Your task to perform on an android device: Open location settings Image 0: 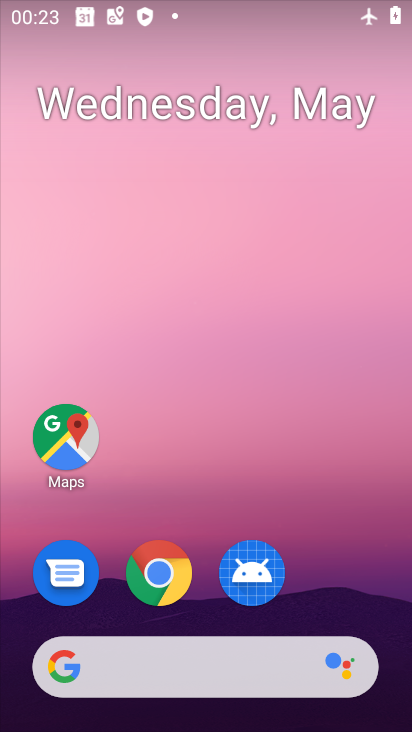
Step 0: drag from (306, 503) to (209, 43)
Your task to perform on an android device: Open location settings Image 1: 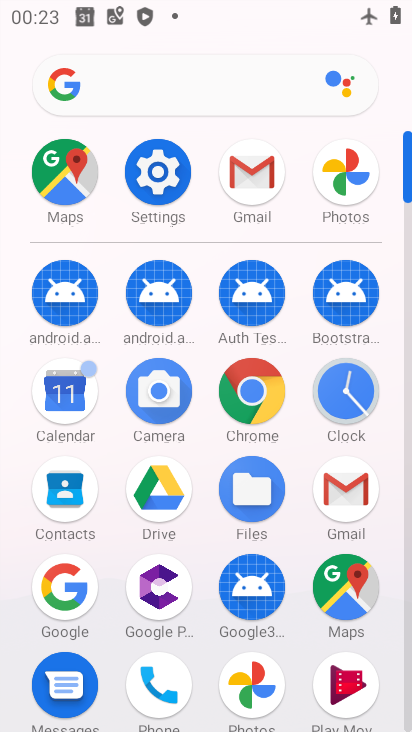
Step 1: click (159, 184)
Your task to perform on an android device: Open location settings Image 2: 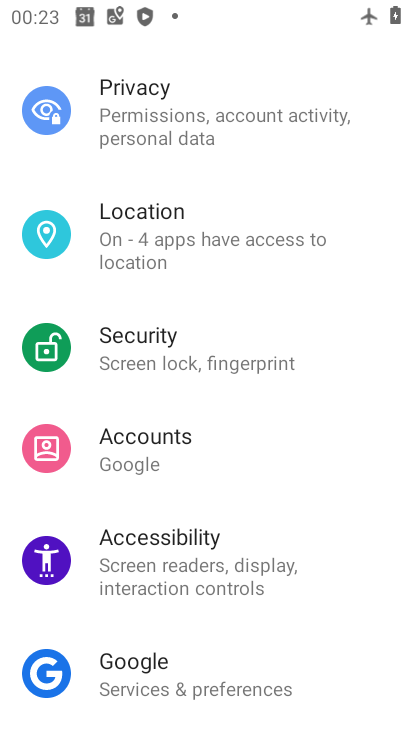
Step 2: click (131, 221)
Your task to perform on an android device: Open location settings Image 3: 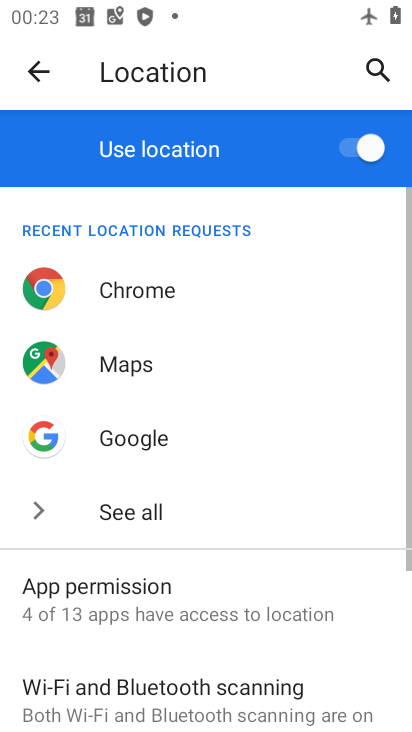
Step 3: task complete